Your task to perform on an android device: turn on showing notifications on the lock screen Image 0: 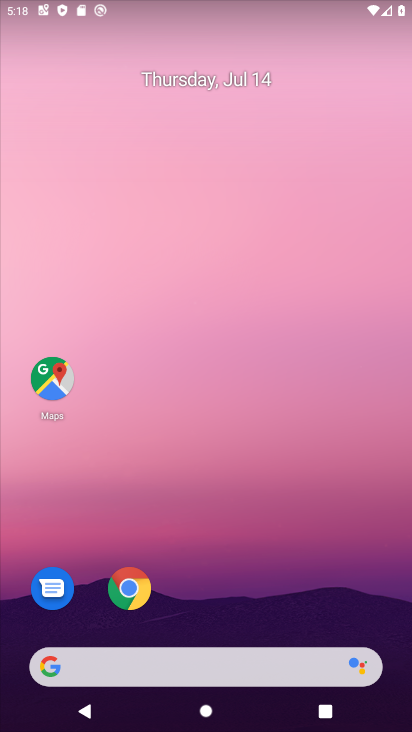
Step 0: drag from (180, 636) to (191, 227)
Your task to perform on an android device: turn on showing notifications on the lock screen Image 1: 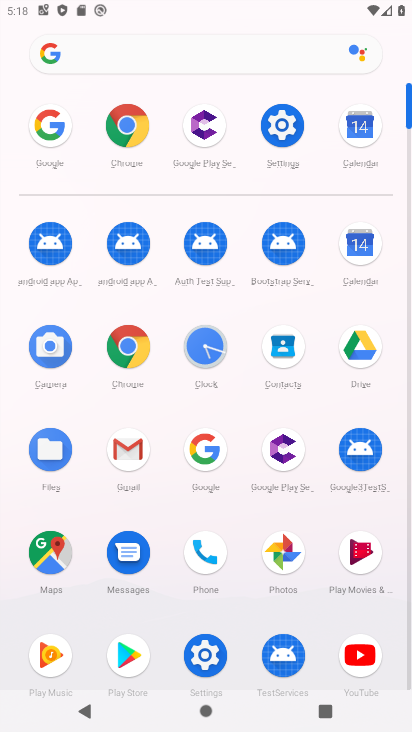
Step 1: click (287, 134)
Your task to perform on an android device: turn on showing notifications on the lock screen Image 2: 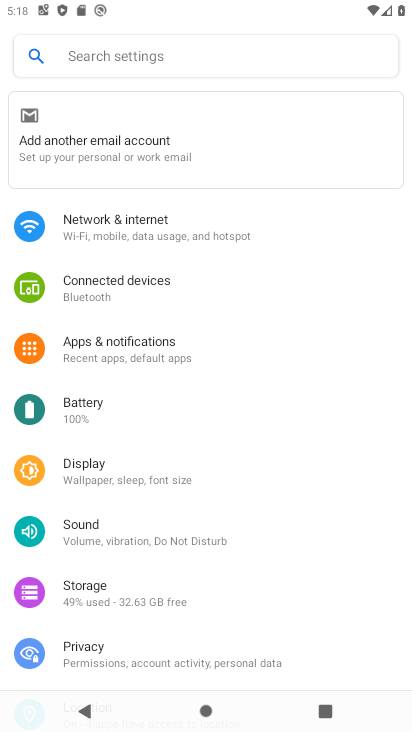
Step 2: click (106, 649)
Your task to perform on an android device: turn on showing notifications on the lock screen Image 3: 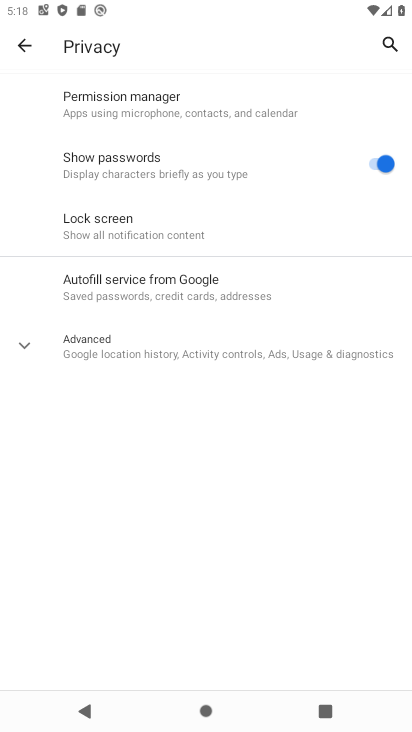
Step 3: click (90, 235)
Your task to perform on an android device: turn on showing notifications on the lock screen Image 4: 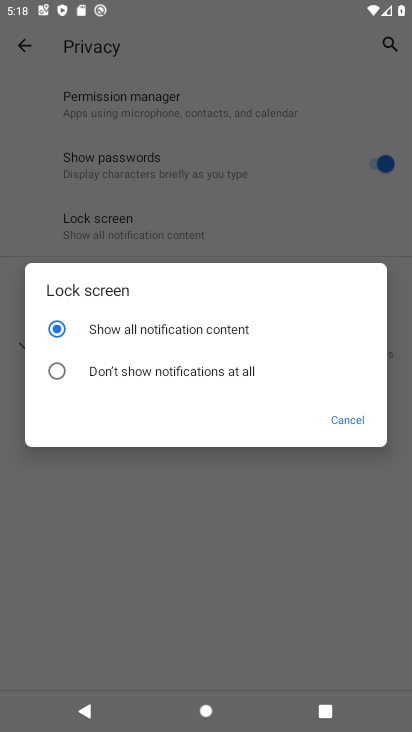
Step 4: task complete